Your task to perform on an android device: Search for vegetarian restaurants on Maps Image 0: 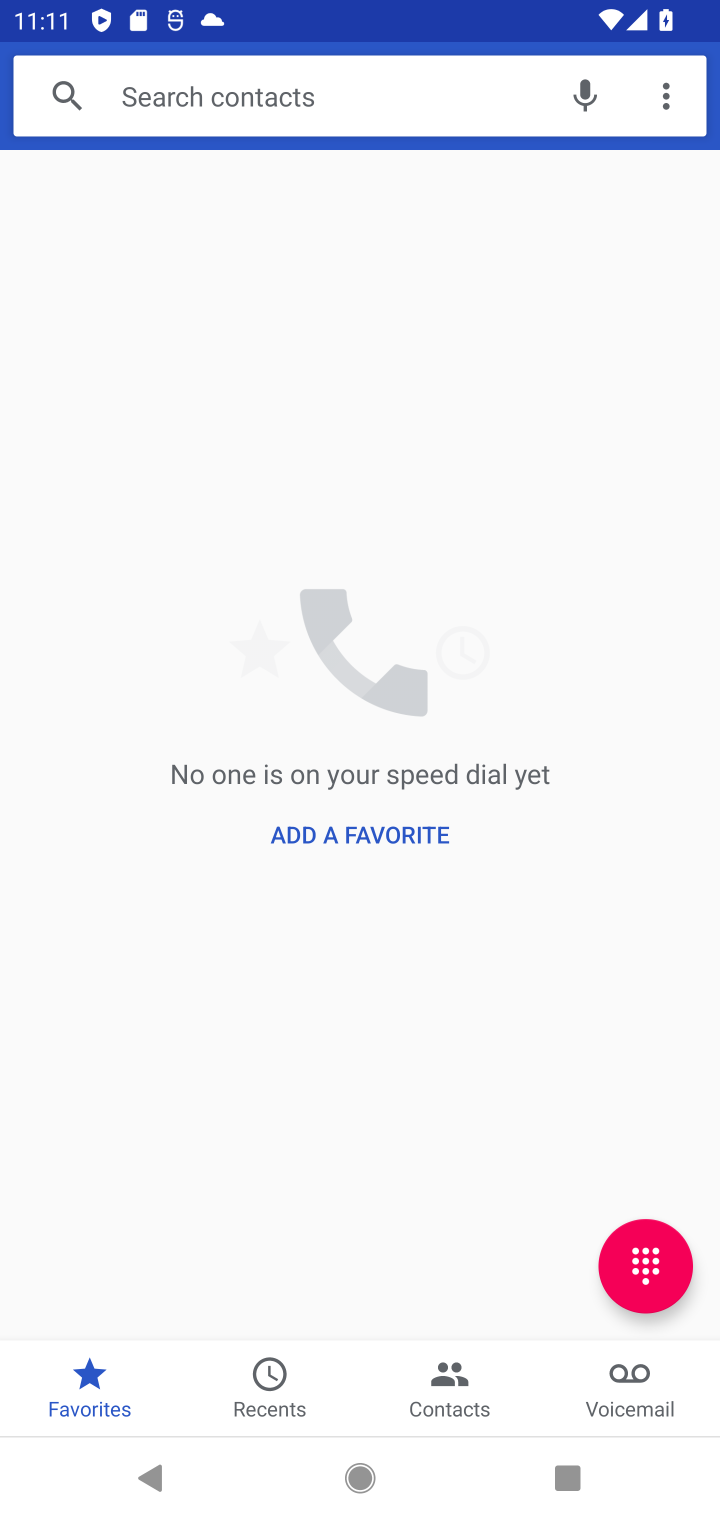
Step 0: press home button
Your task to perform on an android device: Search for vegetarian restaurants on Maps Image 1: 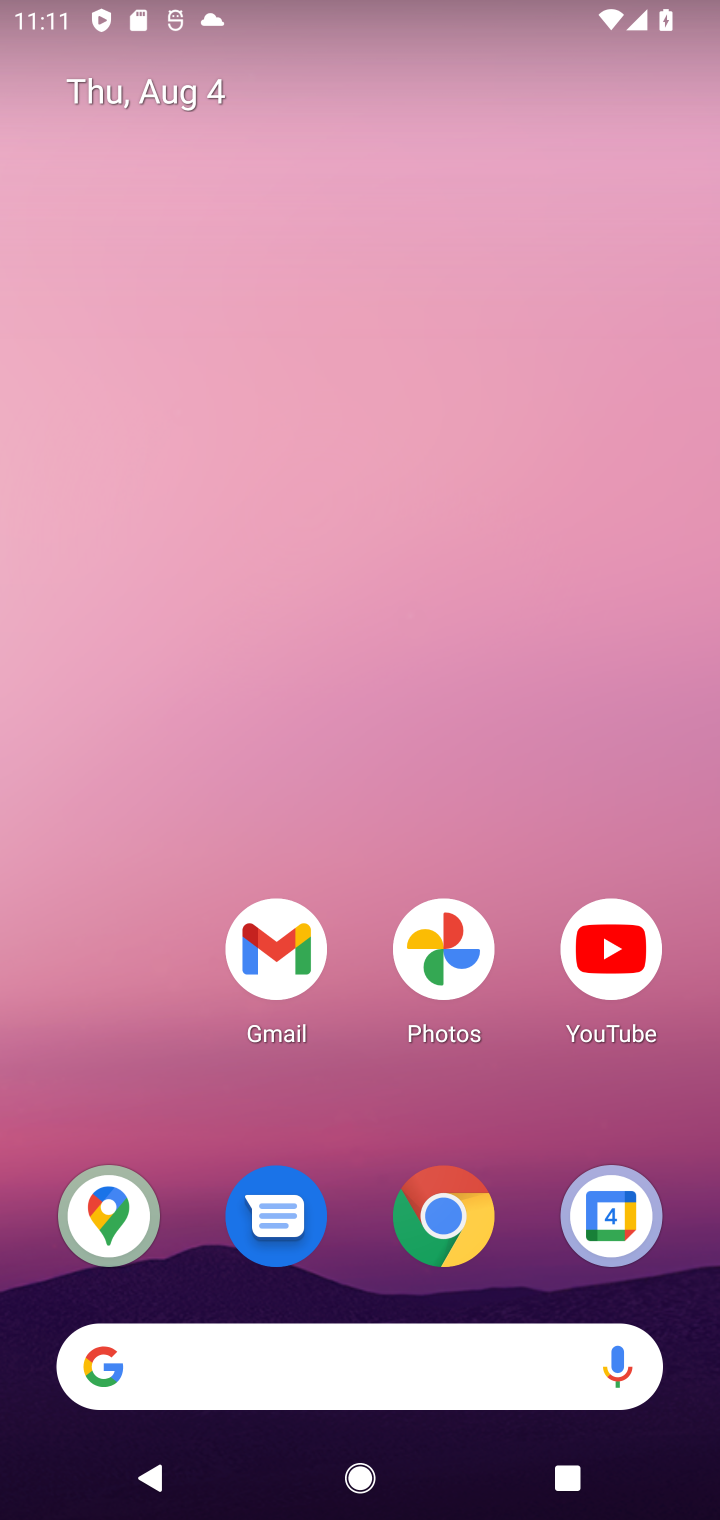
Step 1: click (109, 1208)
Your task to perform on an android device: Search for vegetarian restaurants on Maps Image 2: 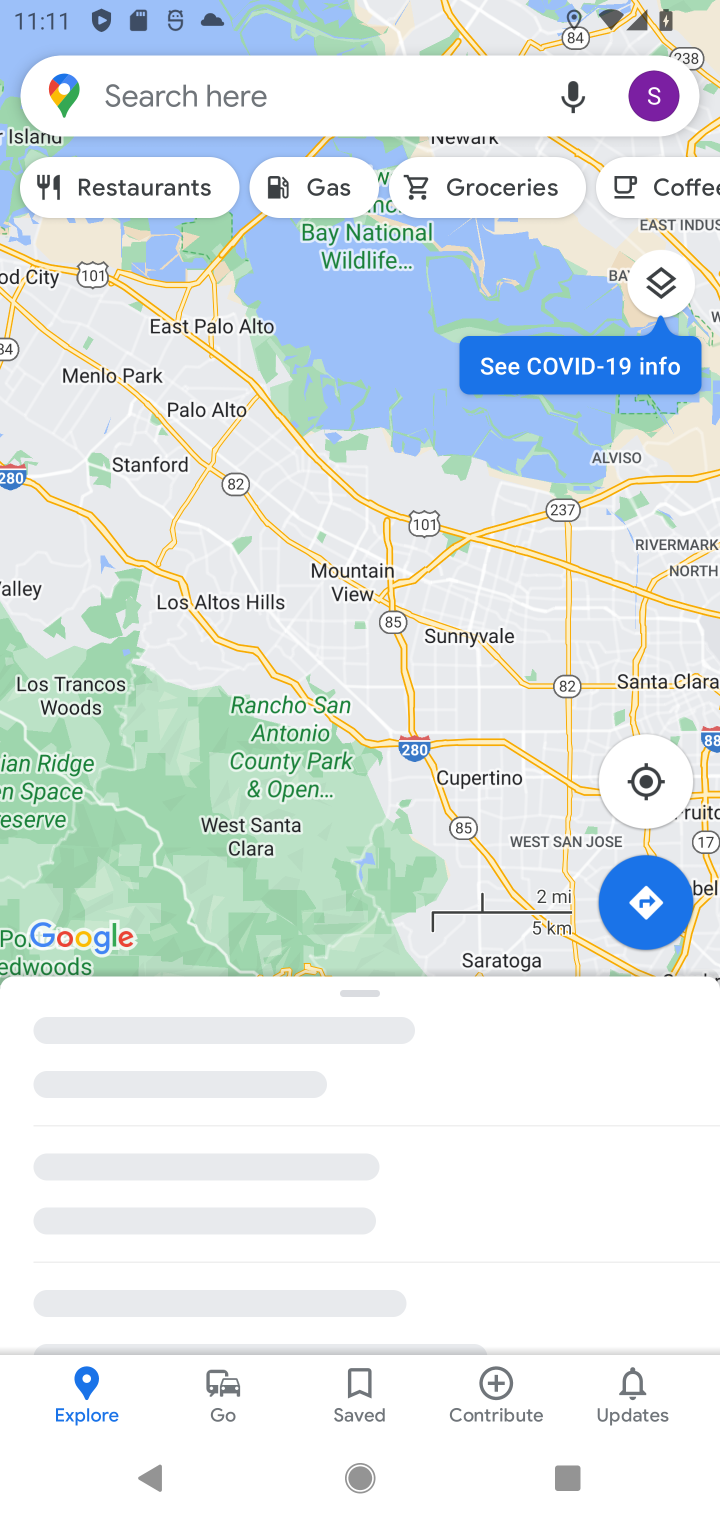
Step 2: click (280, 104)
Your task to perform on an android device: Search for vegetarian restaurants on Maps Image 3: 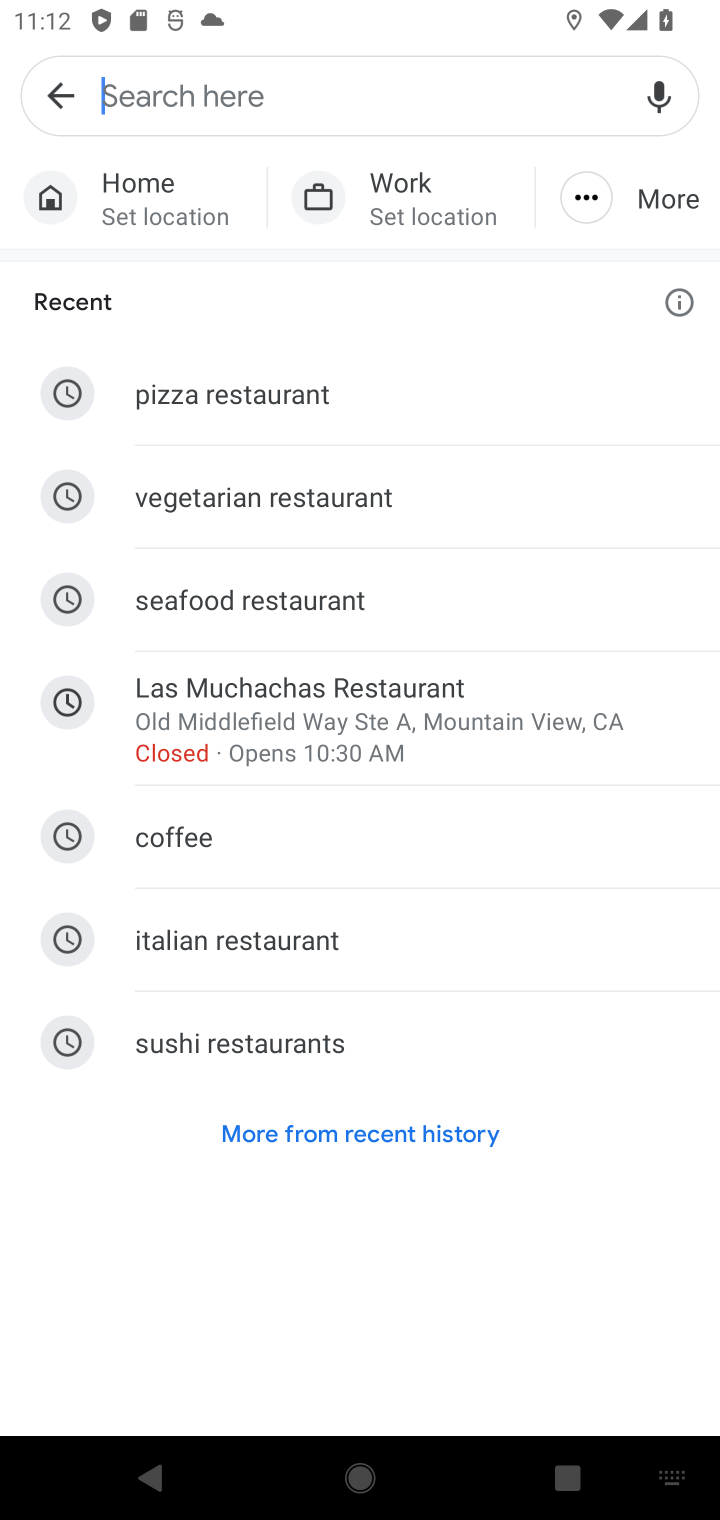
Step 3: type "vegetarian restaurants"
Your task to perform on an android device: Search for vegetarian restaurants on Maps Image 4: 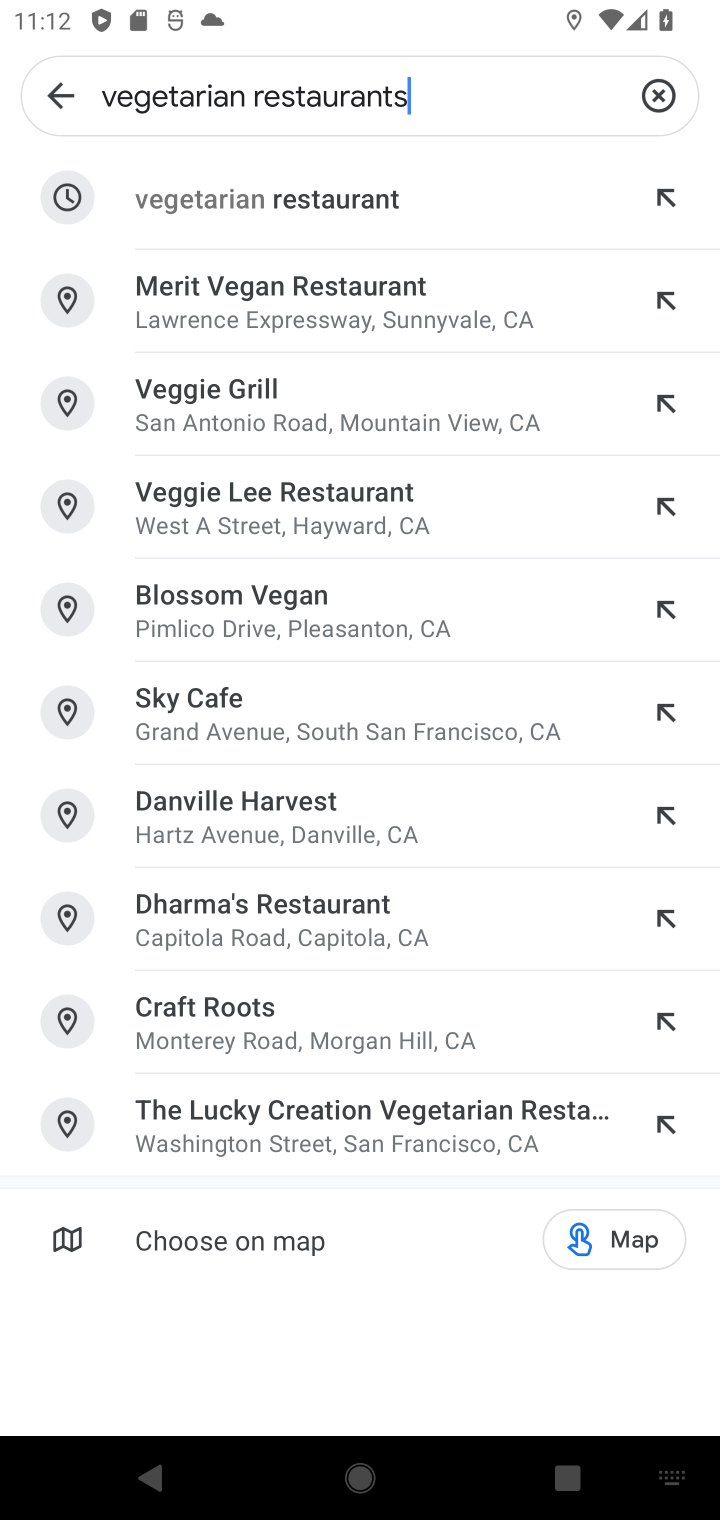
Step 4: click (370, 201)
Your task to perform on an android device: Search for vegetarian restaurants on Maps Image 5: 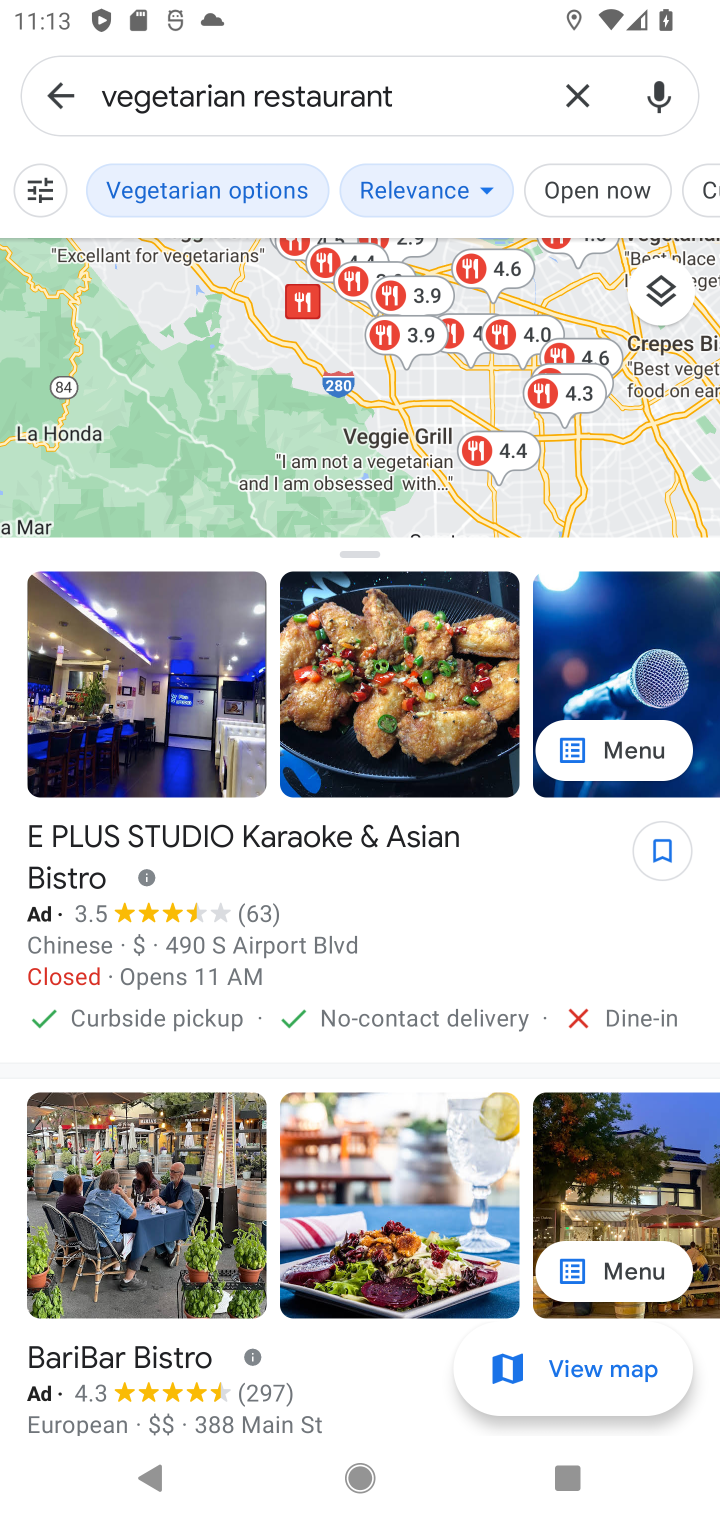
Step 5: task complete